Your task to perform on an android device: turn off improve location accuracy Image 0: 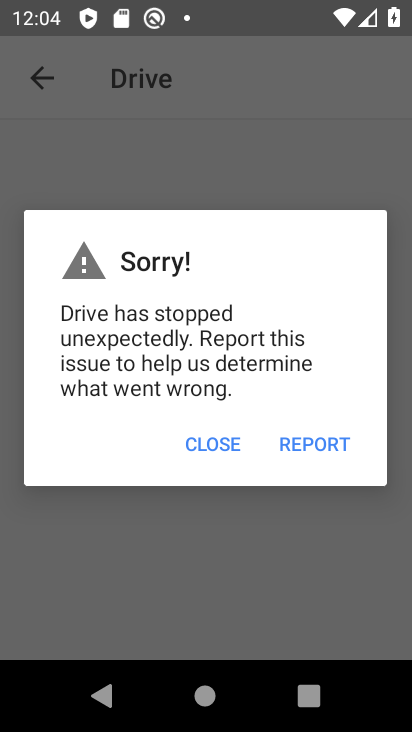
Step 0: click (216, 438)
Your task to perform on an android device: turn off improve location accuracy Image 1: 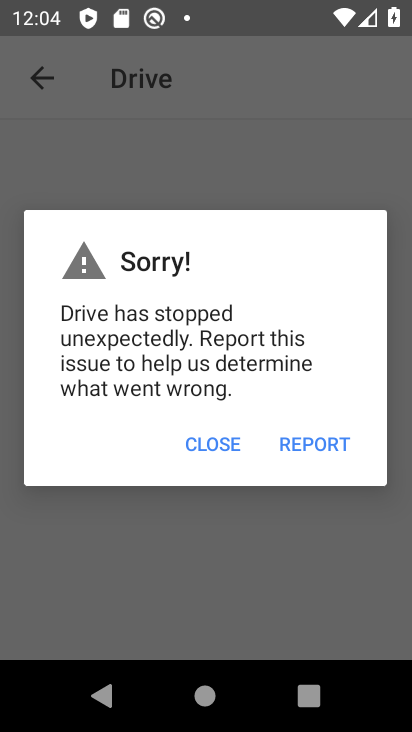
Step 1: click (208, 435)
Your task to perform on an android device: turn off improve location accuracy Image 2: 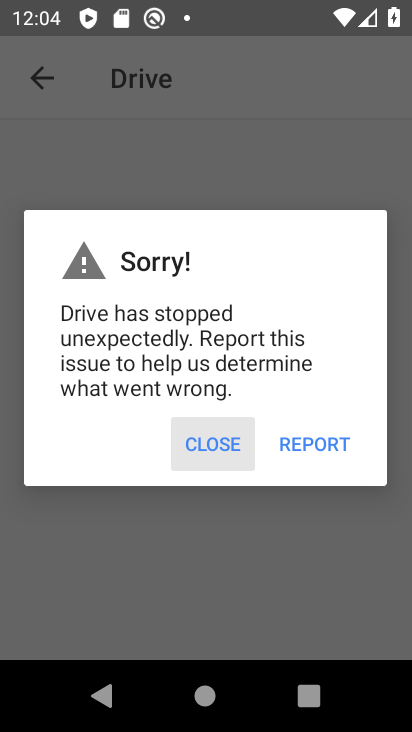
Step 2: click (208, 435)
Your task to perform on an android device: turn off improve location accuracy Image 3: 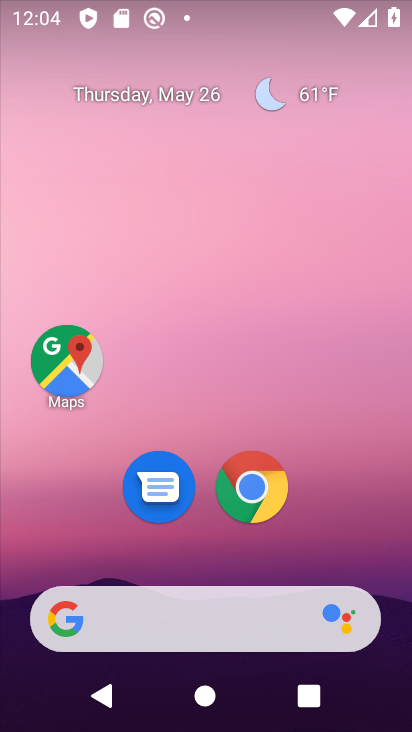
Step 3: drag from (266, 672) to (247, 187)
Your task to perform on an android device: turn off improve location accuracy Image 4: 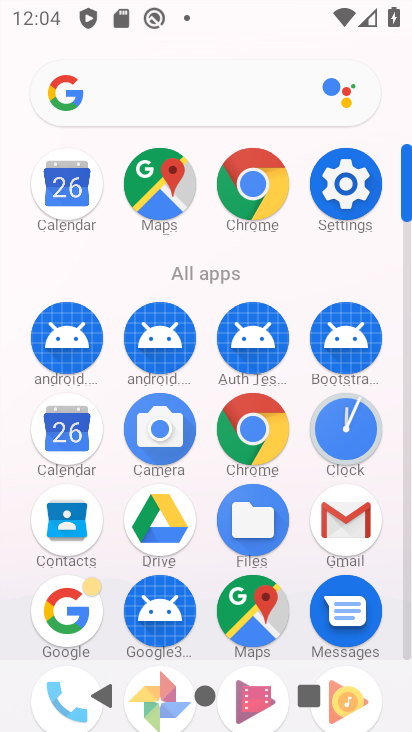
Step 4: click (330, 177)
Your task to perform on an android device: turn off improve location accuracy Image 5: 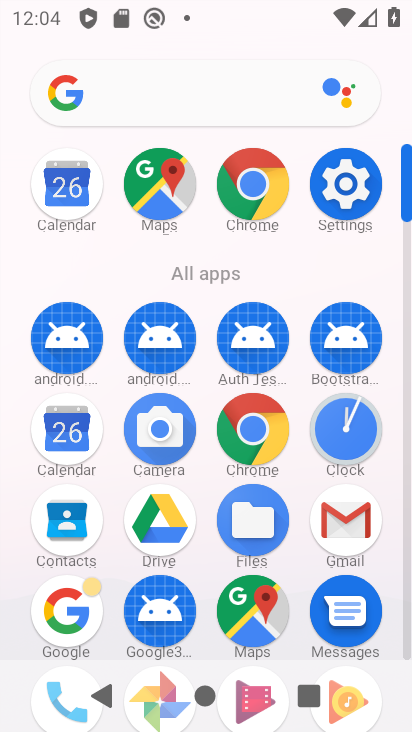
Step 5: click (345, 187)
Your task to perform on an android device: turn off improve location accuracy Image 6: 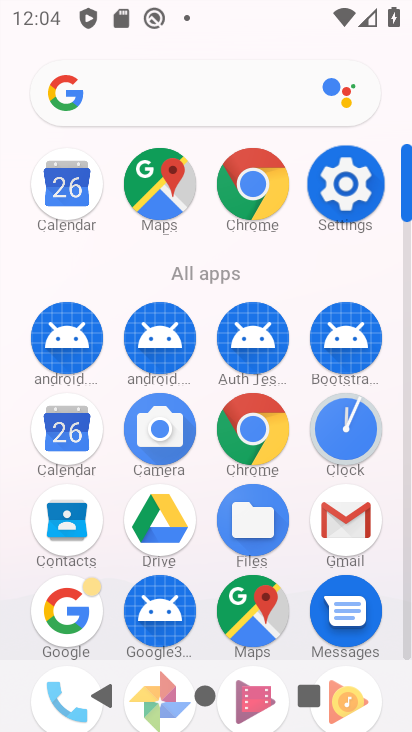
Step 6: click (345, 187)
Your task to perform on an android device: turn off improve location accuracy Image 7: 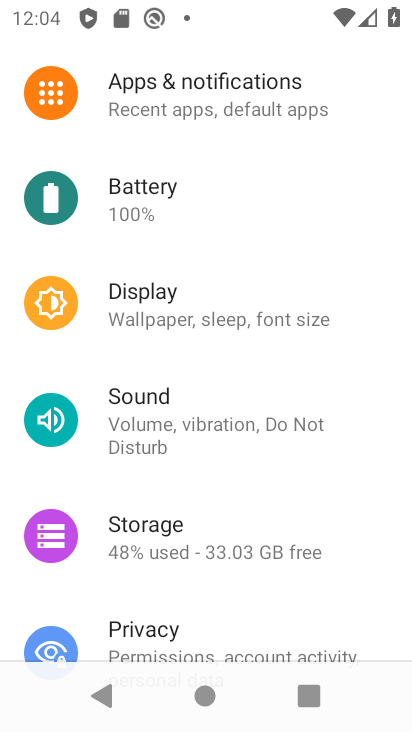
Step 7: drag from (202, 522) to (164, 175)
Your task to perform on an android device: turn off improve location accuracy Image 8: 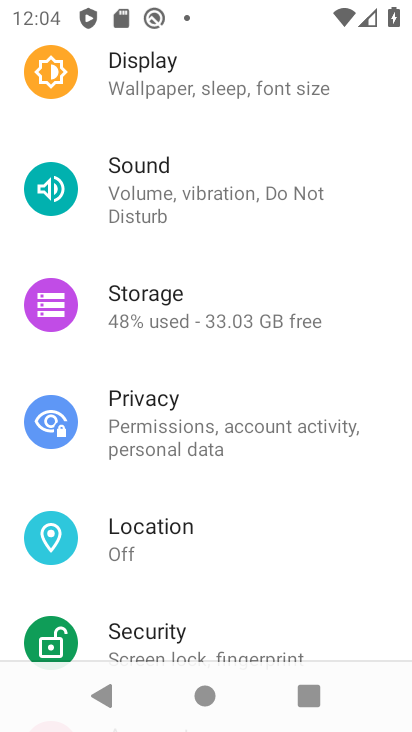
Step 8: drag from (230, 420) to (213, 176)
Your task to perform on an android device: turn off improve location accuracy Image 9: 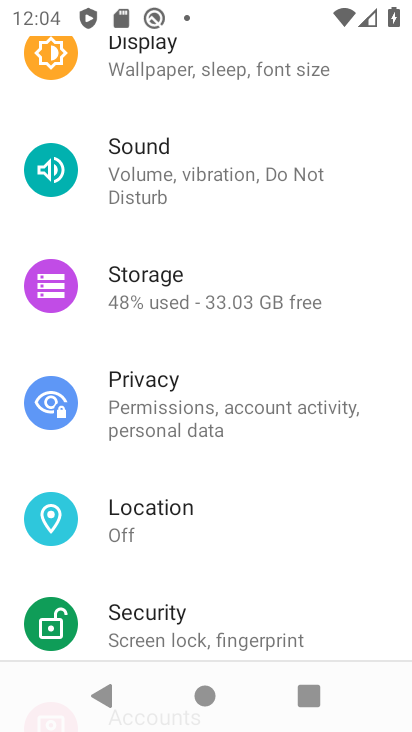
Step 9: drag from (260, 424) to (235, 108)
Your task to perform on an android device: turn off improve location accuracy Image 10: 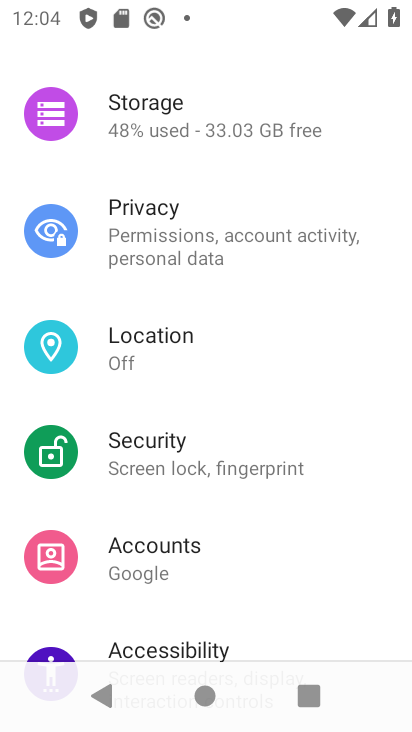
Step 10: click (166, 507)
Your task to perform on an android device: turn off improve location accuracy Image 11: 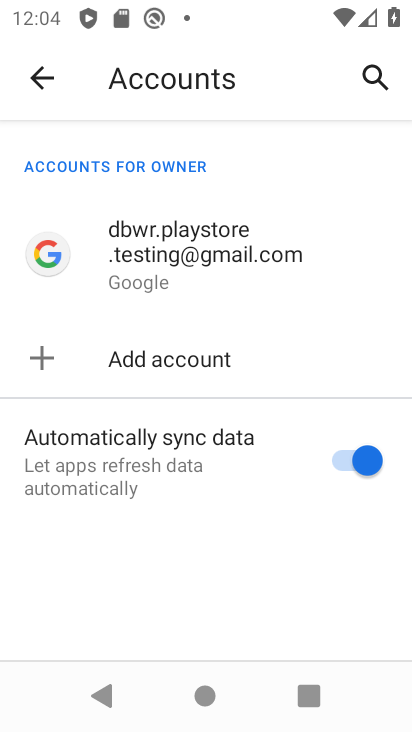
Step 11: click (163, 351)
Your task to perform on an android device: turn off improve location accuracy Image 12: 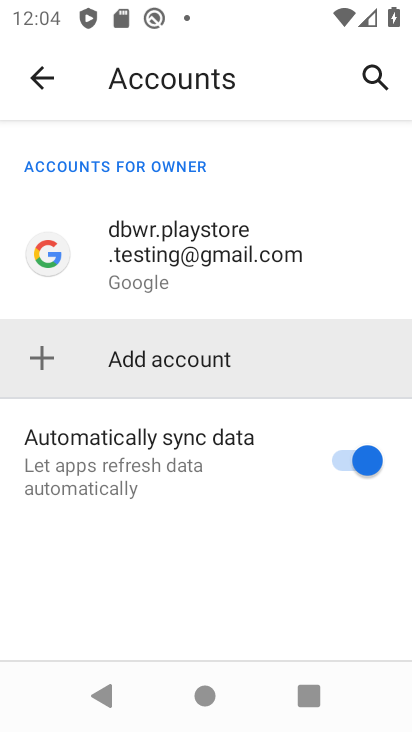
Step 12: click (137, 352)
Your task to perform on an android device: turn off improve location accuracy Image 13: 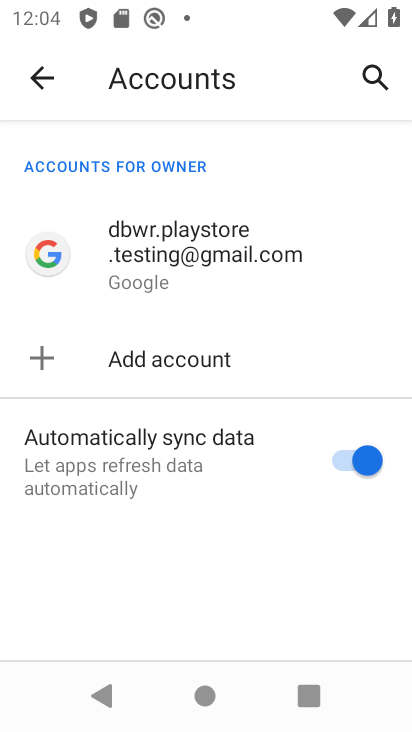
Step 13: click (136, 353)
Your task to perform on an android device: turn off improve location accuracy Image 14: 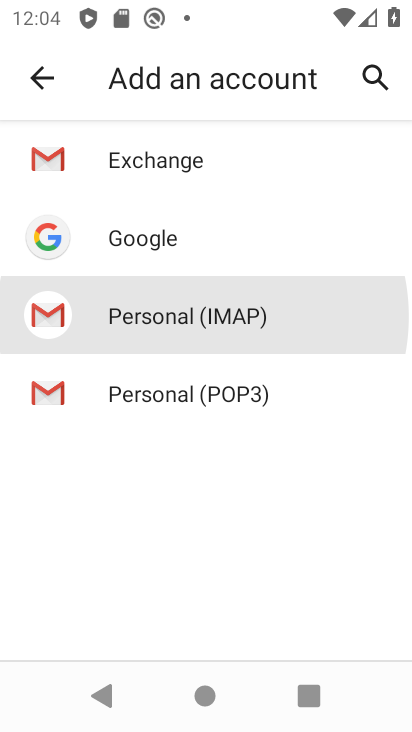
Step 14: click (138, 353)
Your task to perform on an android device: turn off improve location accuracy Image 15: 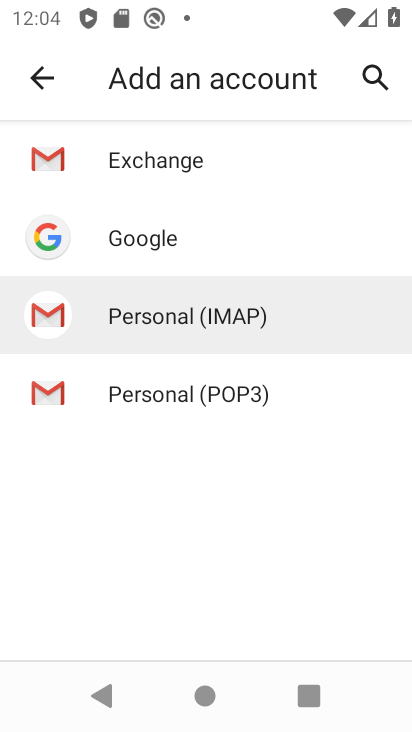
Step 15: click (142, 356)
Your task to perform on an android device: turn off improve location accuracy Image 16: 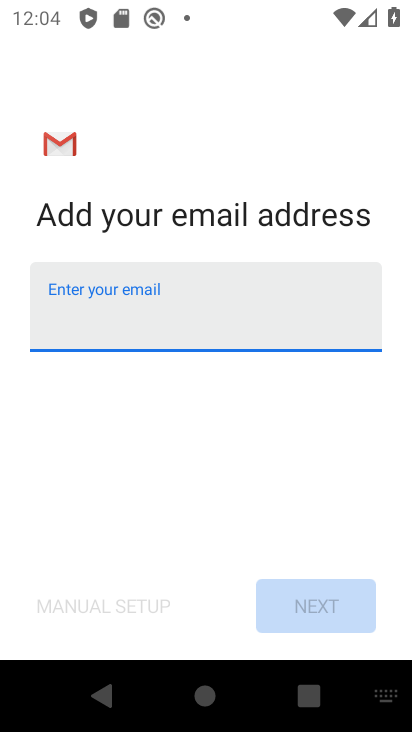
Step 16: press back button
Your task to perform on an android device: turn off improve location accuracy Image 17: 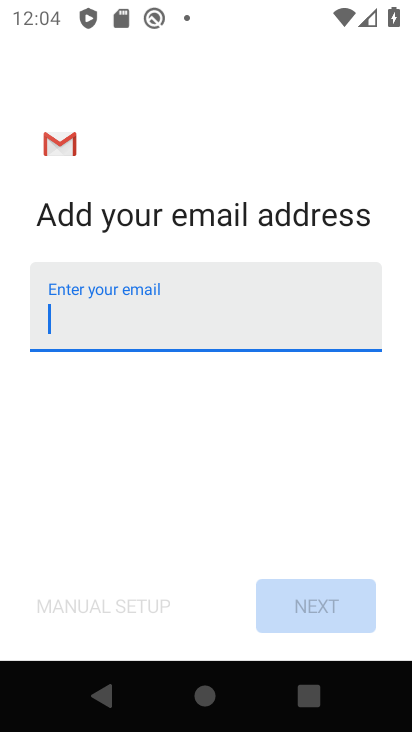
Step 17: press back button
Your task to perform on an android device: turn off improve location accuracy Image 18: 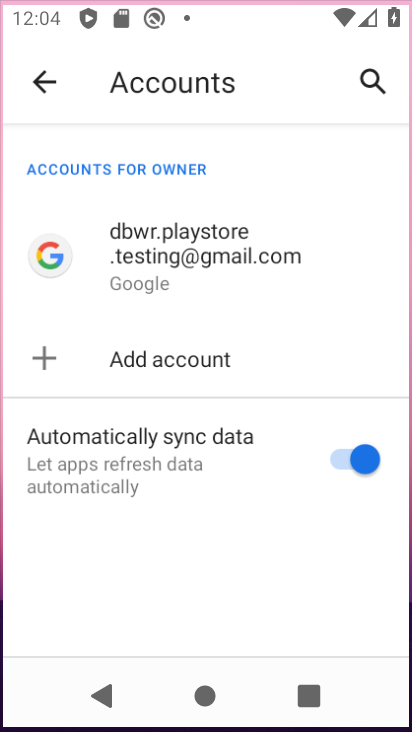
Step 18: press back button
Your task to perform on an android device: turn off improve location accuracy Image 19: 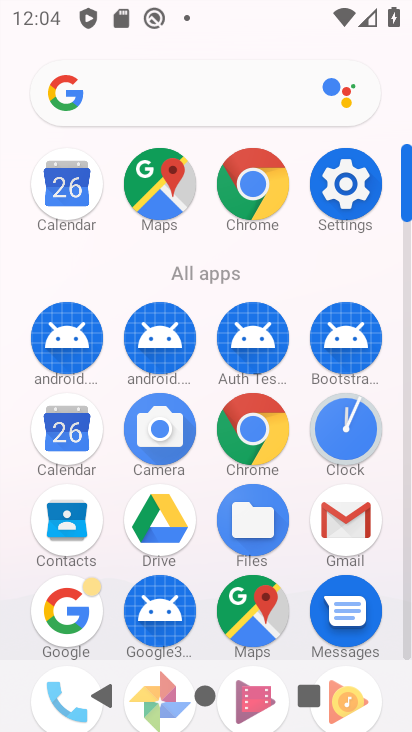
Step 19: click (52, 69)
Your task to perform on an android device: turn off improve location accuracy Image 20: 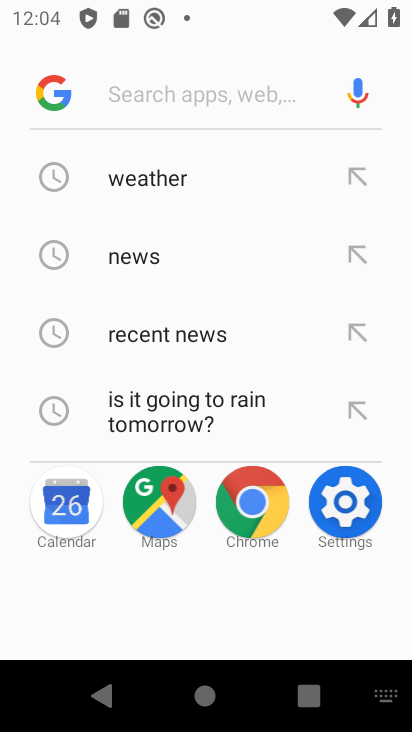
Step 20: press back button
Your task to perform on an android device: turn off improve location accuracy Image 21: 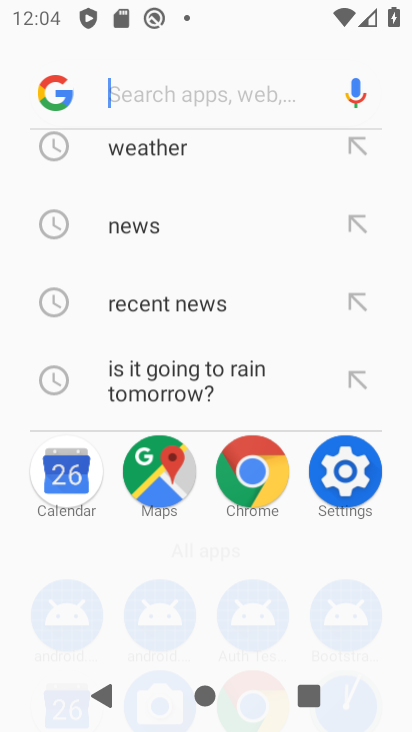
Step 21: press back button
Your task to perform on an android device: turn off improve location accuracy Image 22: 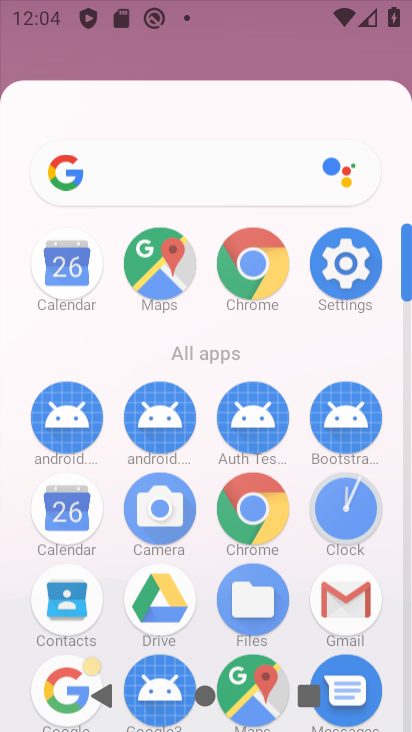
Step 22: press back button
Your task to perform on an android device: turn off improve location accuracy Image 23: 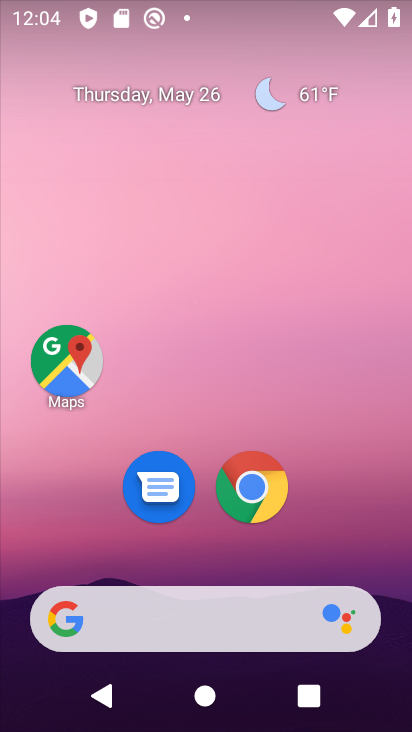
Step 23: drag from (340, 642) to (303, 0)
Your task to perform on an android device: turn off improve location accuracy Image 24: 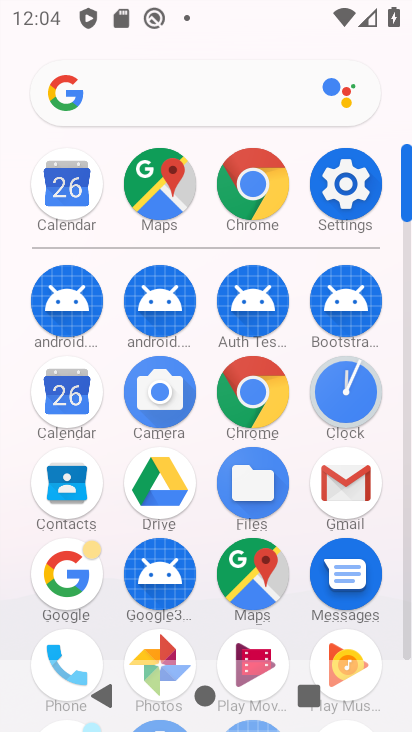
Step 24: click (359, 190)
Your task to perform on an android device: turn off improve location accuracy Image 25: 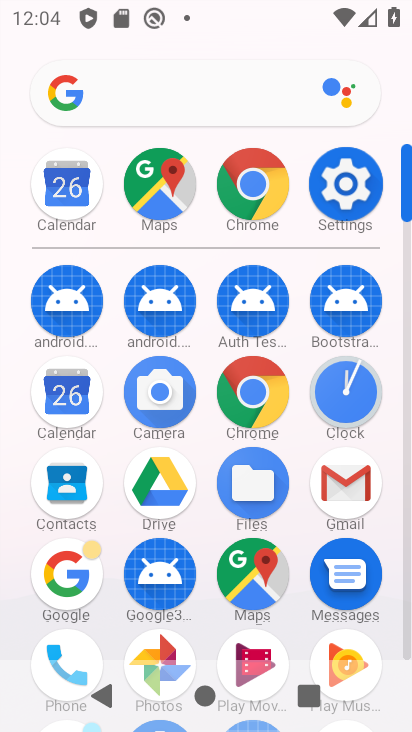
Step 25: click (359, 190)
Your task to perform on an android device: turn off improve location accuracy Image 26: 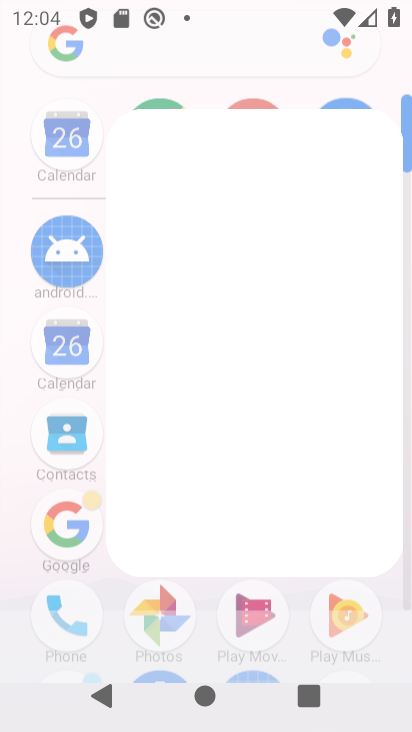
Step 26: click (359, 190)
Your task to perform on an android device: turn off improve location accuracy Image 27: 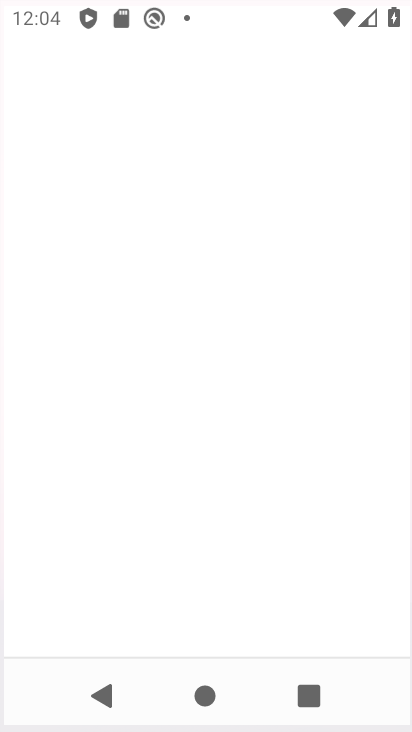
Step 27: click (359, 190)
Your task to perform on an android device: turn off improve location accuracy Image 28: 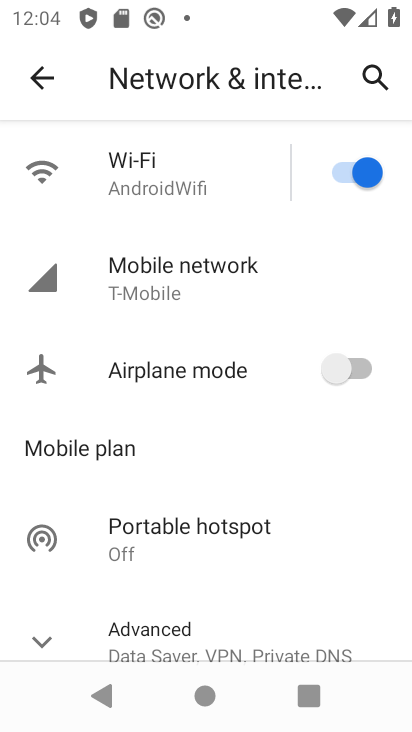
Step 28: click (41, 83)
Your task to perform on an android device: turn off improve location accuracy Image 29: 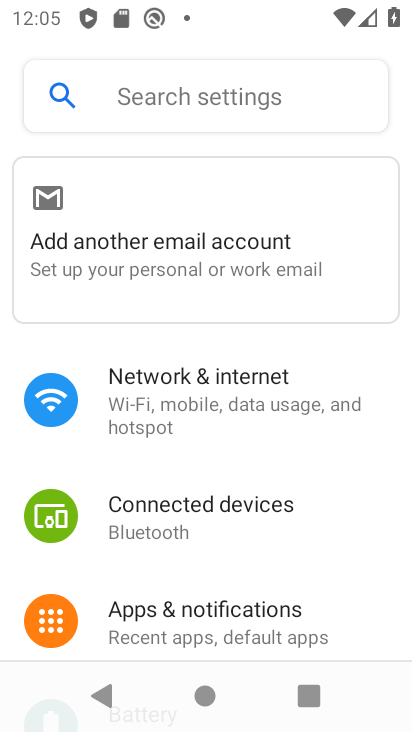
Step 29: drag from (234, 598) to (226, 330)
Your task to perform on an android device: turn off improve location accuracy Image 30: 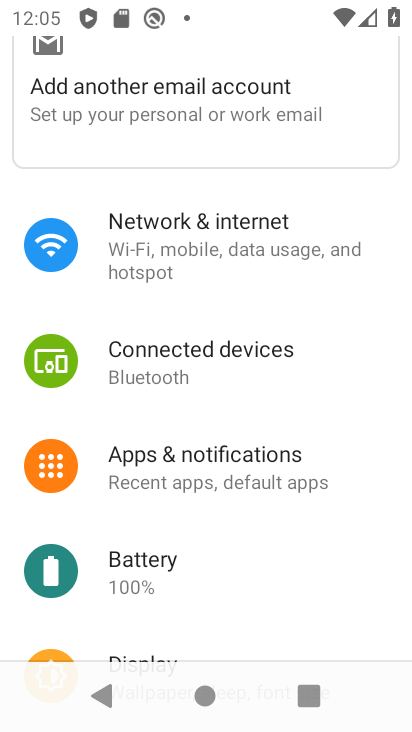
Step 30: drag from (251, 538) to (212, 222)
Your task to perform on an android device: turn off improve location accuracy Image 31: 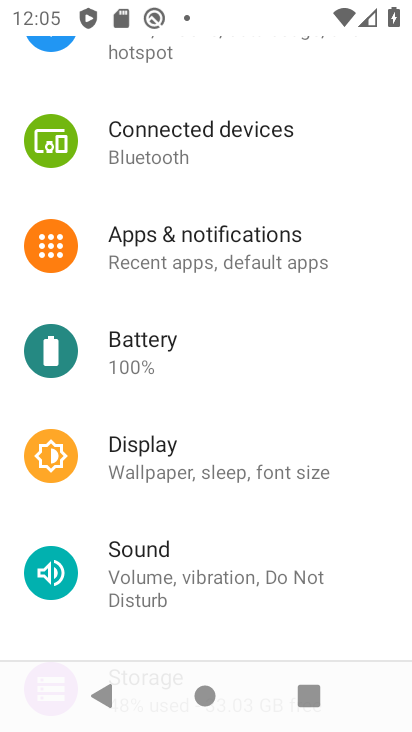
Step 31: drag from (215, 476) to (232, 136)
Your task to perform on an android device: turn off improve location accuracy Image 32: 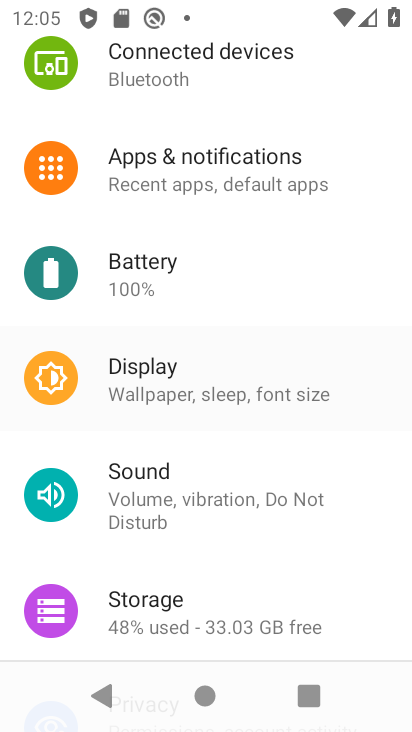
Step 32: drag from (168, 406) to (136, 179)
Your task to perform on an android device: turn off improve location accuracy Image 33: 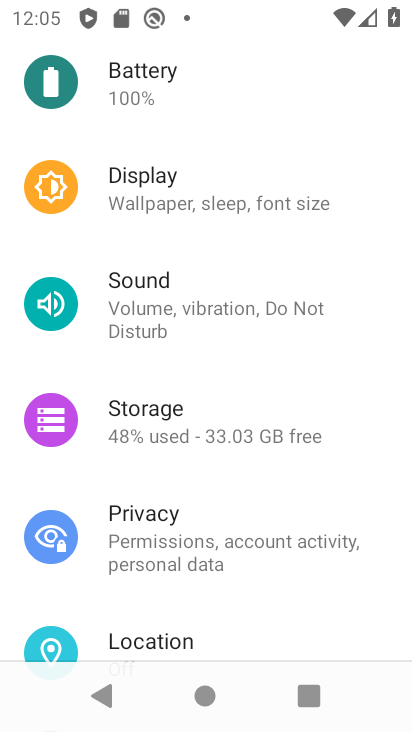
Step 33: click (163, 634)
Your task to perform on an android device: turn off improve location accuracy Image 34: 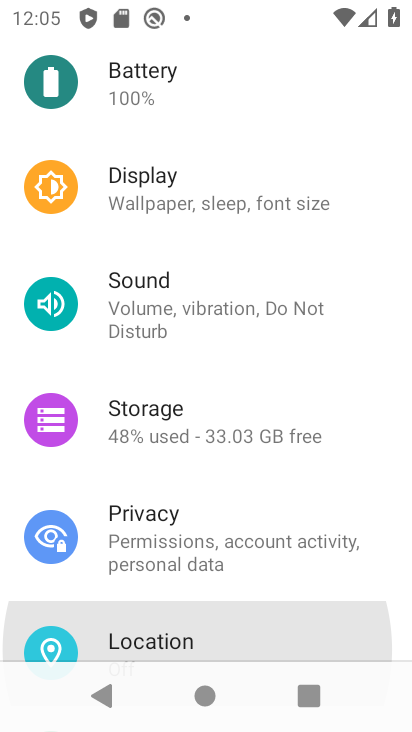
Step 34: click (164, 634)
Your task to perform on an android device: turn off improve location accuracy Image 35: 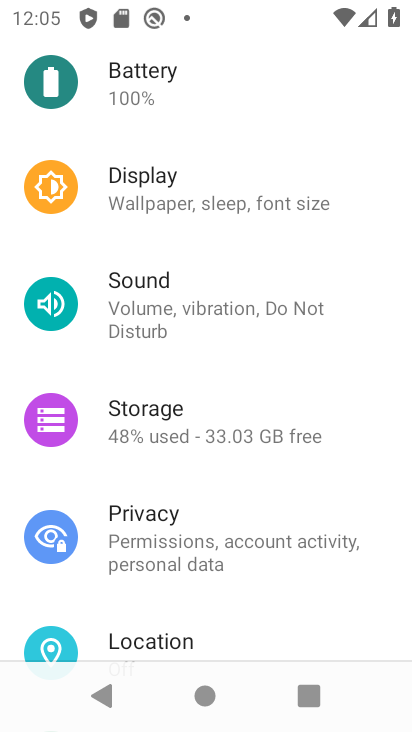
Step 35: click (165, 635)
Your task to perform on an android device: turn off improve location accuracy Image 36: 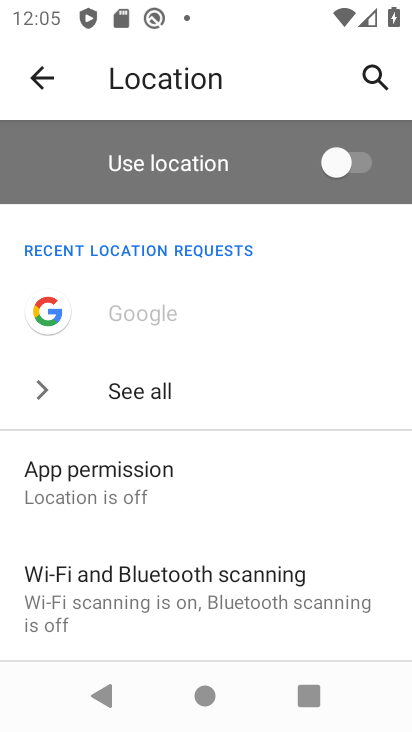
Step 36: drag from (243, 508) to (235, 107)
Your task to perform on an android device: turn off improve location accuracy Image 37: 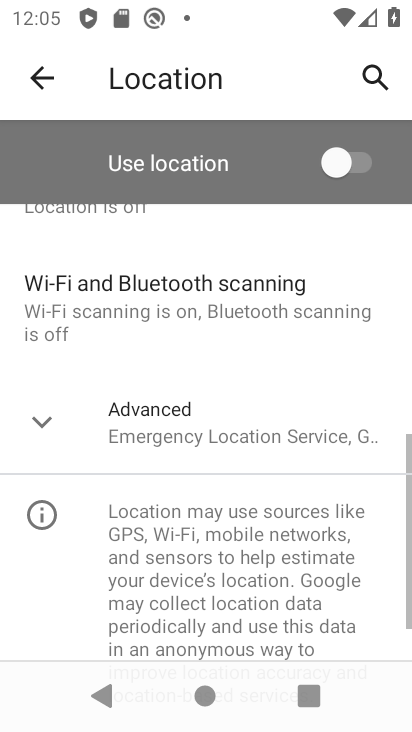
Step 37: drag from (222, 496) to (230, 215)
Your task to perform on an android device: turn off improve location accuracy Image 38: 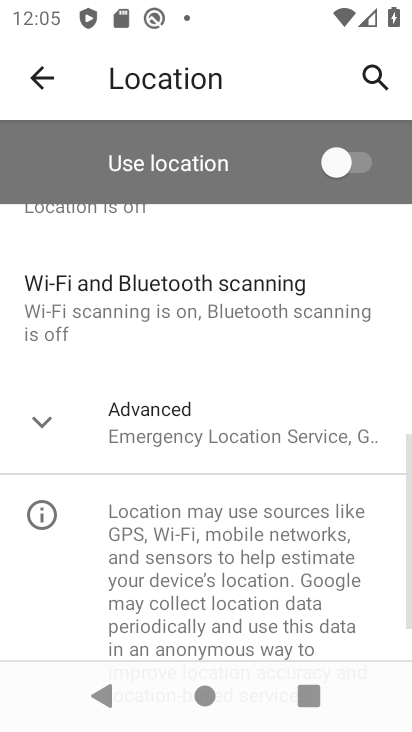
Step 38: drag from (232, 513) to (214, 258)
Your task to perform on an android device: turn off improve location accuracy Image 39: 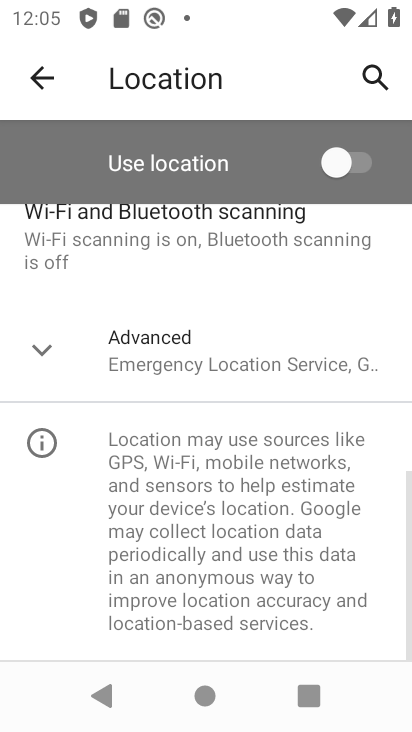
Step 39: click (214, 420)
Your task to perform on an android device: turn off improve location accuracy Image 40: 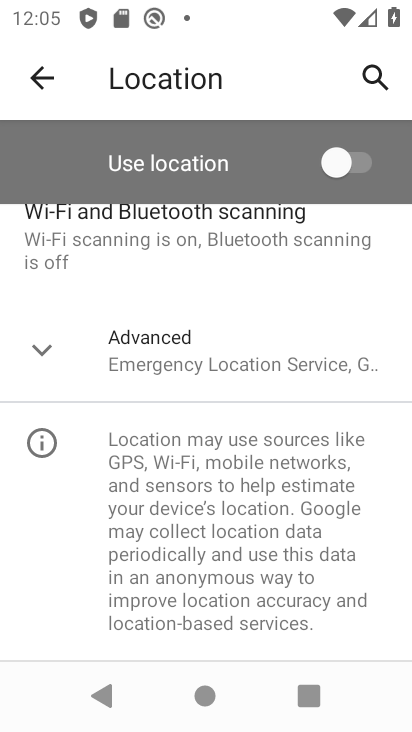
Step 40: click (199, 354)
Your task to perform on an android device: turn off improve location accuracy Image 41: 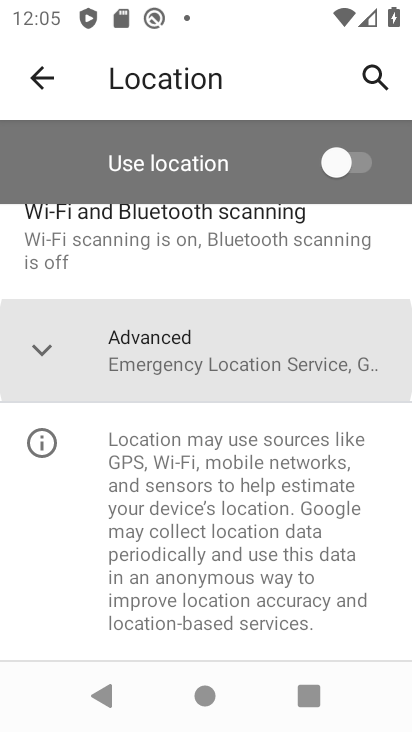
Step 41: click (199, 354)
Your task to perform on an android device: turn off improve location accuracy Image 42: 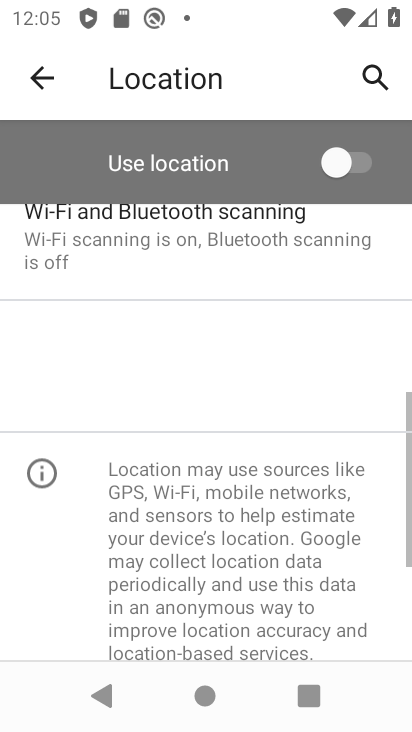
Step 42: click (199, 354)
Your task to perform on an android device: turn off improve location accuracy Image 43: 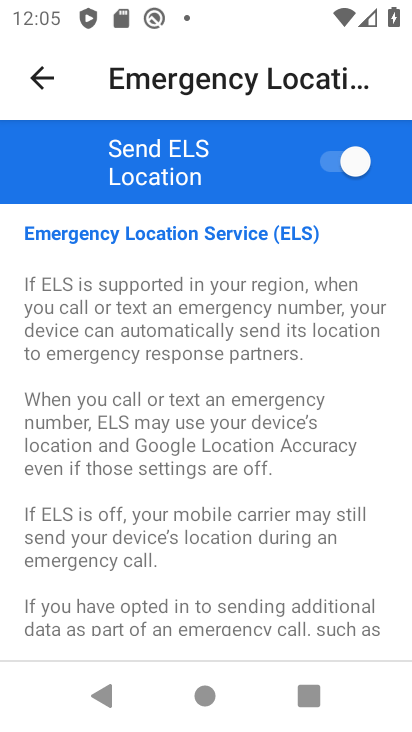
Step 43: click (51, 81)
Your task to perform on an android device: turn off improve location accuracy Image 44: 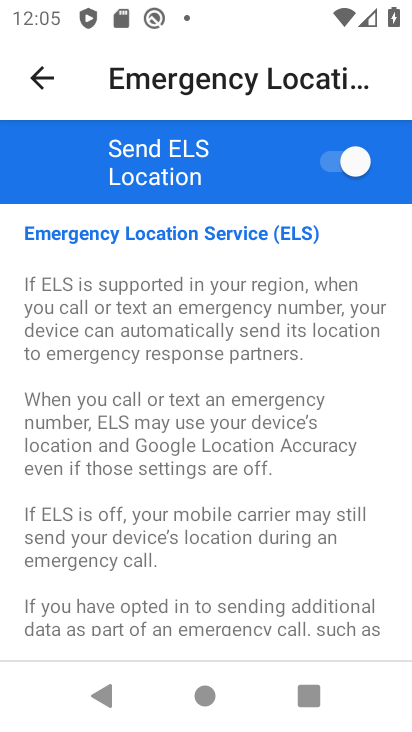
Step 44: click (46, 75)
Your task to perform on an android device: turn off improve location accuracy Image 45: 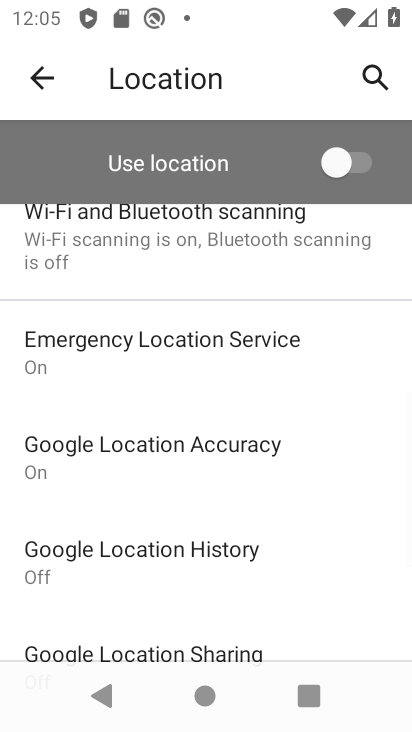
Step 45: click (168, 424)
Your task to perform on an android device: turn off improve location accuracy Image 46: 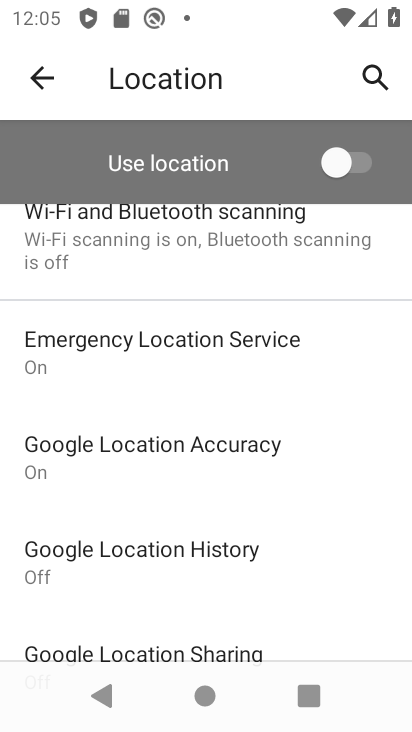
Step 46: click (168, 427)
Your task to perform on an android device: turn off improve location accuracy Image 47: 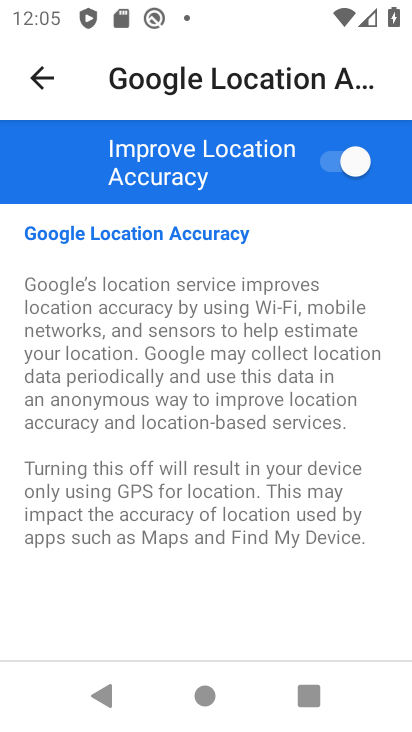
Step 47: click (358, 150)
Your task to perform on an android device: turn off improve location accuracy Image 48: 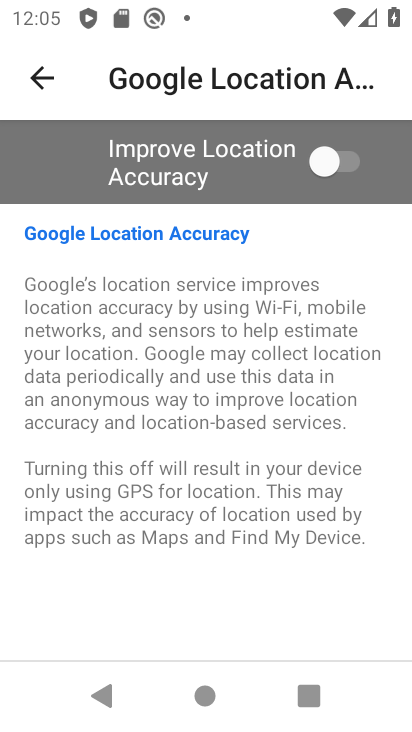
Step 48: task complete